Your task to perform on an android device: toggle notification dots Image 0: 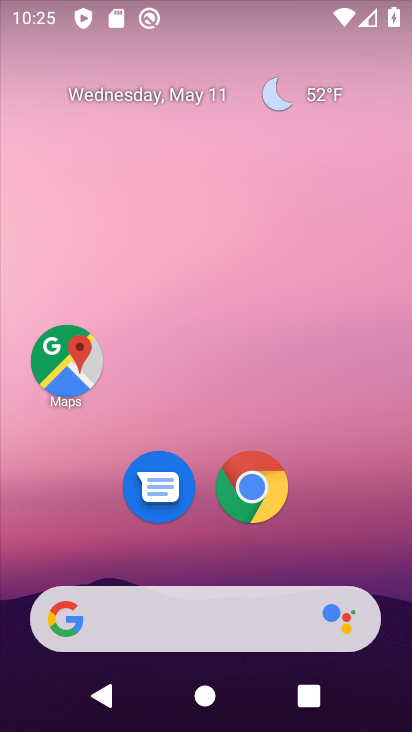
Step 0: drag from (331, 500) to (256, 0)
Your task to perform on an android device: toggle notification dots Image 1: 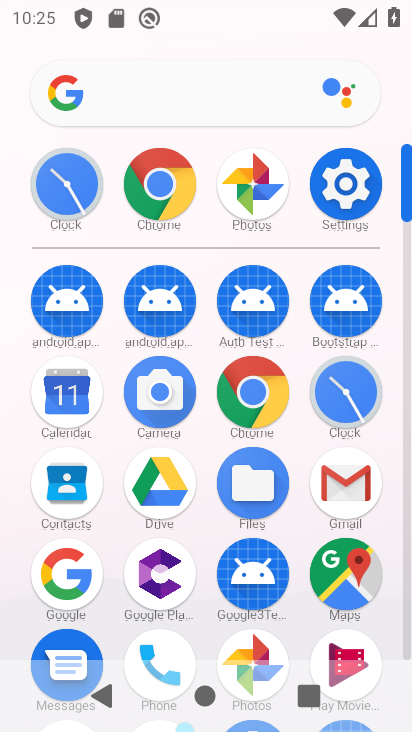
Step 1: click (345, 180)
Your task to perform on an android device: toggle notification dots Image 2: 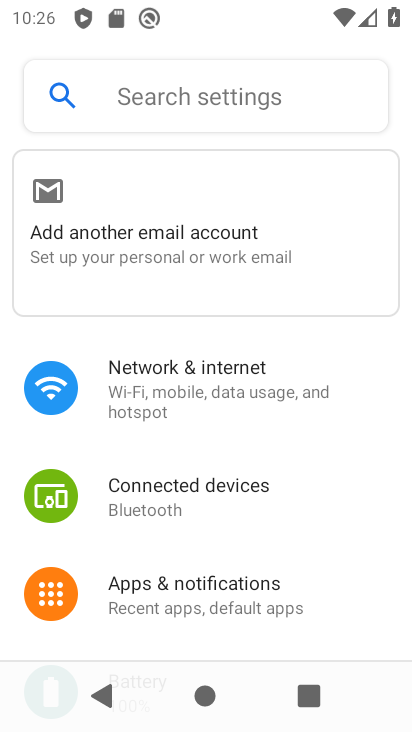
Step 2: click (216, 598)
Your task to perform on an android device: toggle notification dots Image 3: 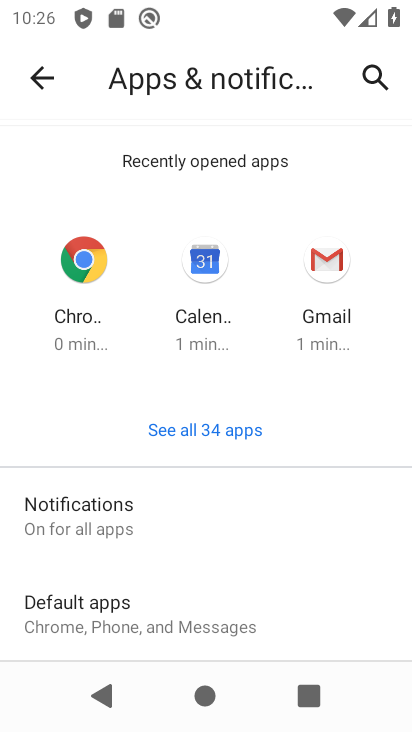
Step 3: click (166, 505)
Your task to perform on an android device: toggle notification dots Image 4: 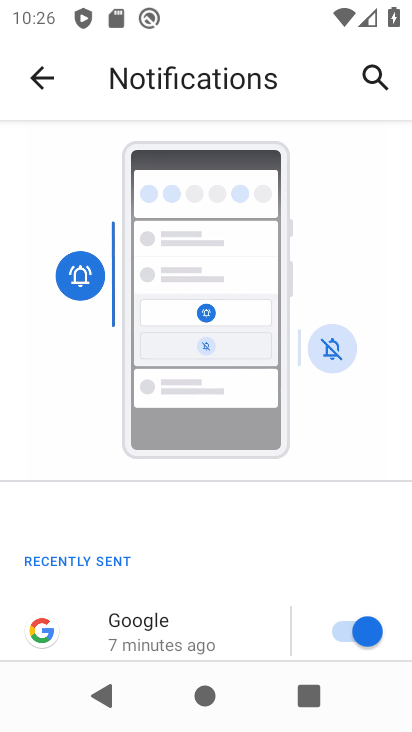
Step 4: drag from (211, 507) to (251, 127)
Your task to perform on an android device: toggle notification dots Image 5: 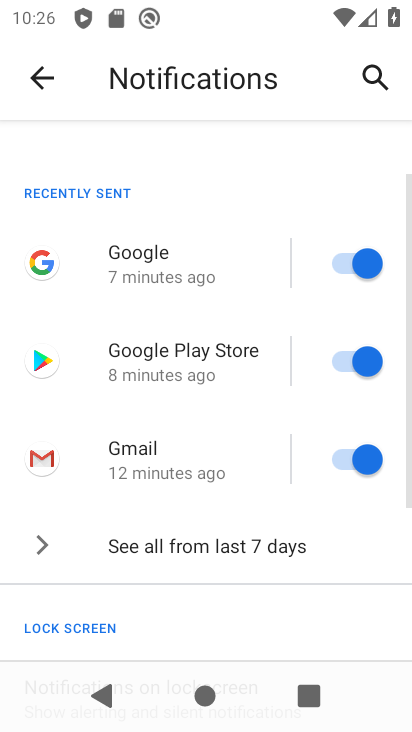
Step 5: drag from (229, 561) to (234, 168)
Your task to perform on an android device: toggle notification dots Image 6: 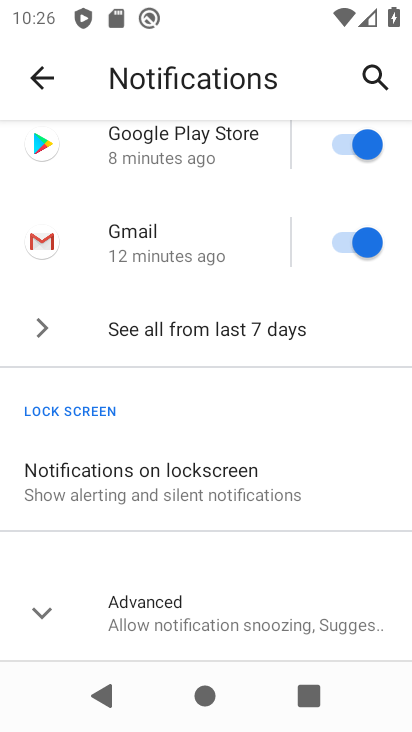
Step 6: click (164, 605)
Your task to perform on an android device: toggle notification dots Image 7: 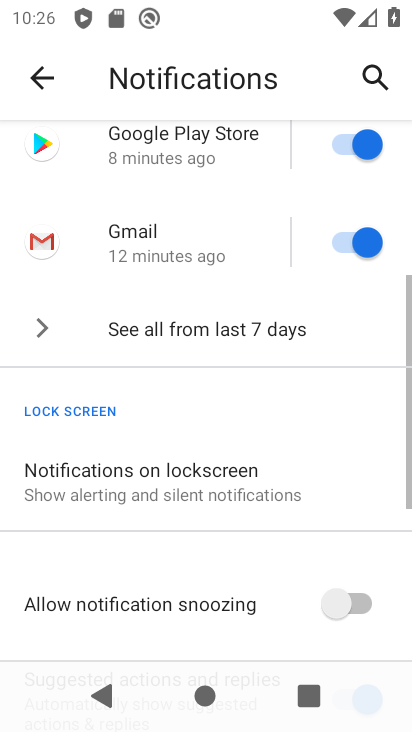
Step 7: drag from (181, 599) to (209, 209)
Your task to perform on an android device: toggle notification dots Image 8: 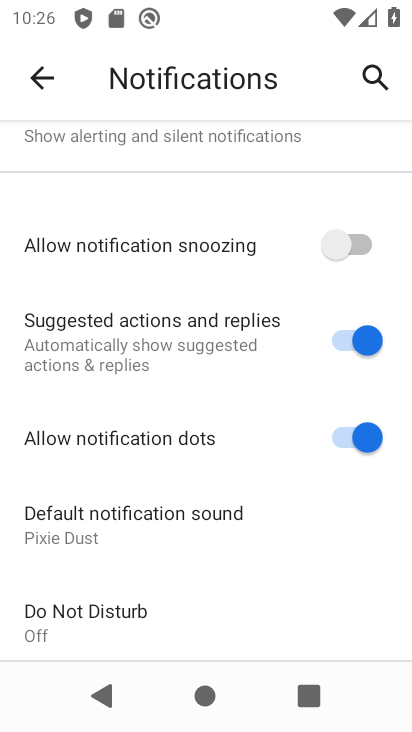
Step 8: click (345, 436)
Your task to perform on an android device: toggle notification dots Image 9: 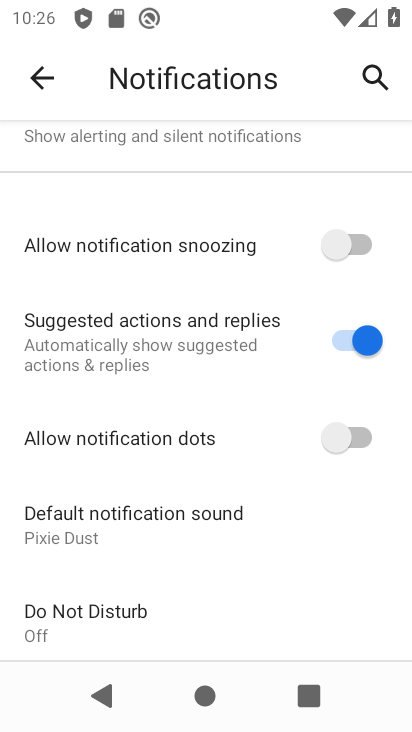
Step 9: task complete